Your task to perform on an android device: see tabs open on other devices in the chrome app Image 0: 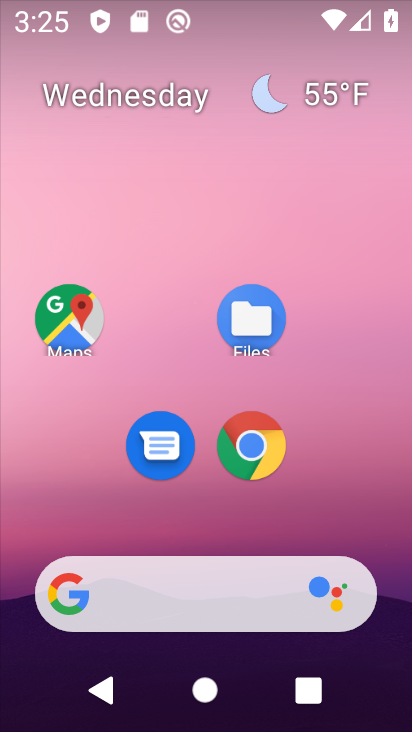
Step 0: click (254, 463)
Your task to perform on an android device: see tabs open on other devices in the chrome app Image 1: 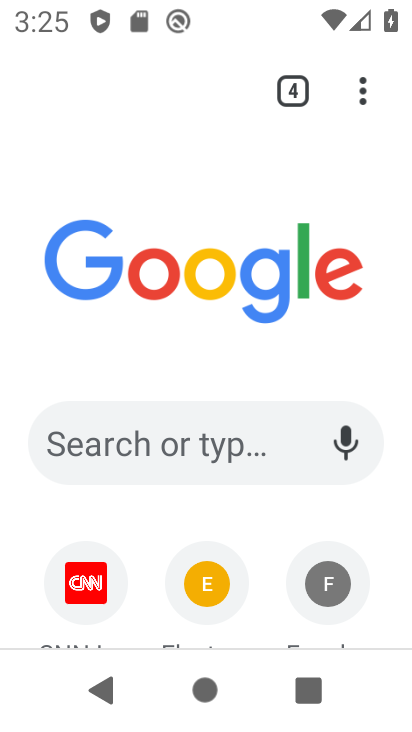
Step 1: click (358, 83)
Your task to perform on an android device: see tabs open on other devices in the chrome app Image 2: 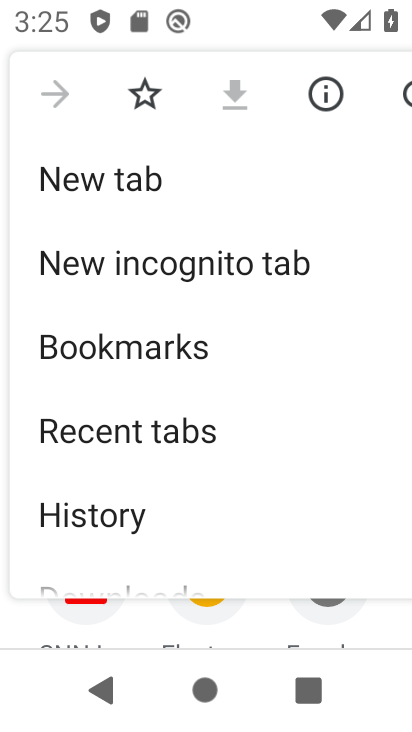
Step 2: click (169, 428)
Your task to perform on an android device: see tabs open on other devices in the chrome app Image 3: 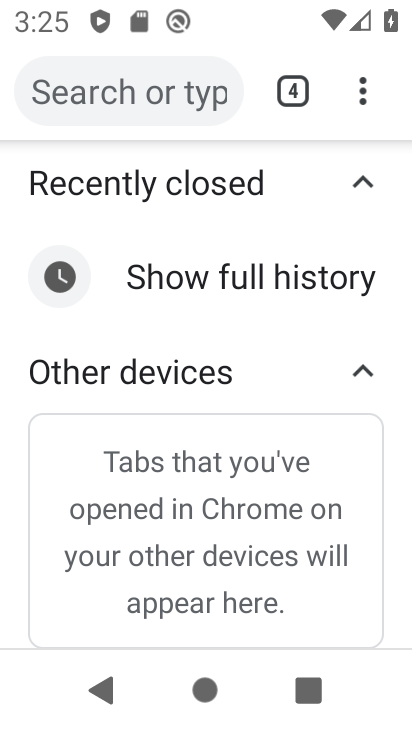
Step 3: click (222, 368)
Your task to perform on an android device: see tabs open on other devices in the chrome app Image 4: 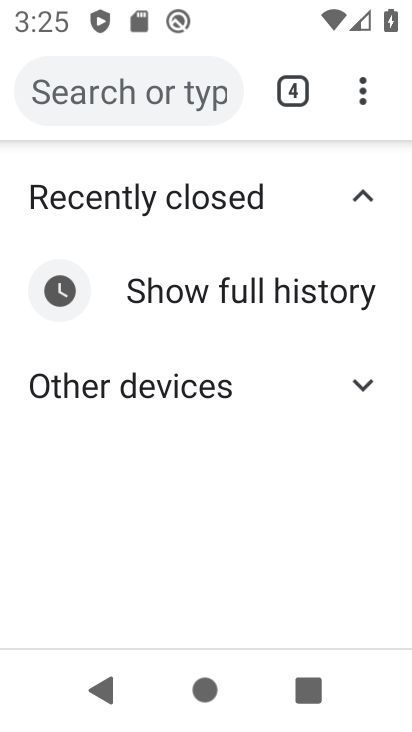
Step 4: click (335, 372)
Your task to perform on an android device: see tabs open on other devices in the chrome app Image 5: 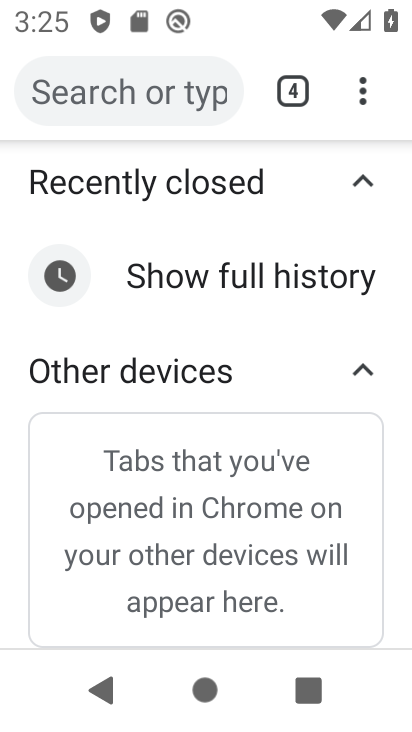
Step 5: task complete